Your task to perform on an android device: set default search engine in the chrome app Image 0: 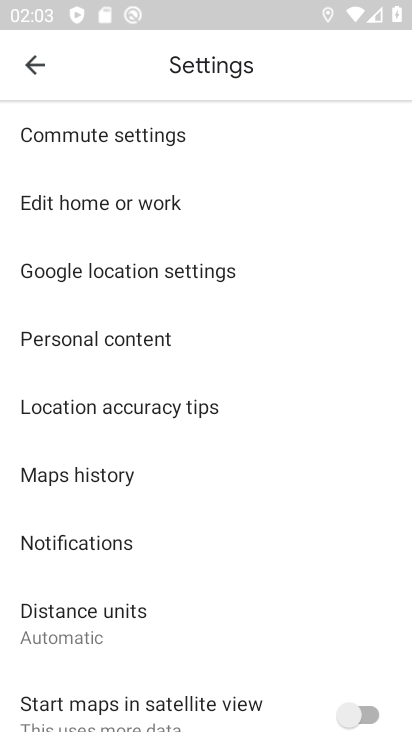
Step 0: press home button
Your task to perform on an android device: set default search engine in the chrome app Image 1: 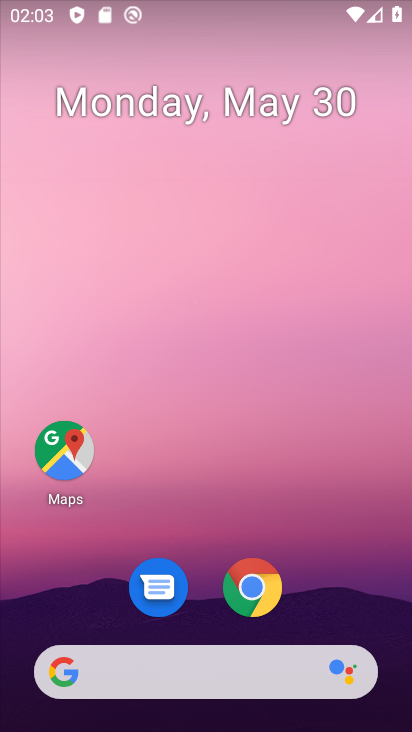
Step 1: click (258, 594)
Your task to perform on an android device: set default search engine in the chrome app Image 2: 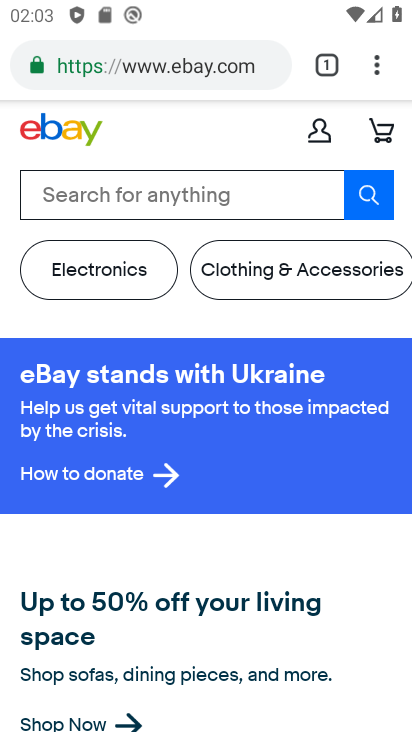
Step 2: click (373, 65)
Your task to perform on an android device: set default search engine in the chrome app Image 3: 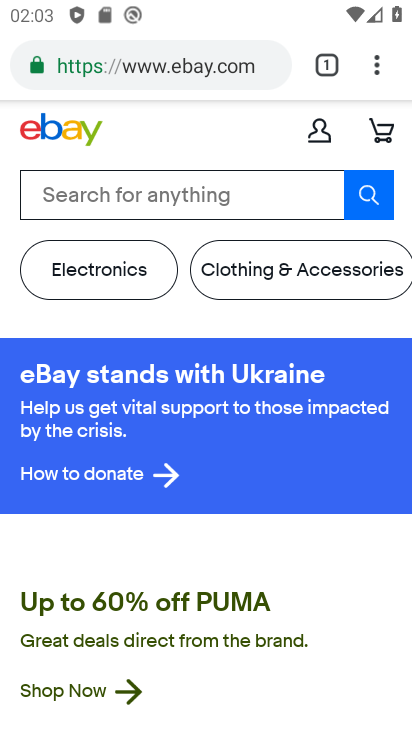
Step 3: click (387, 62)
Your task to perform on an android device: set default search engine in the chrome app Image 4: 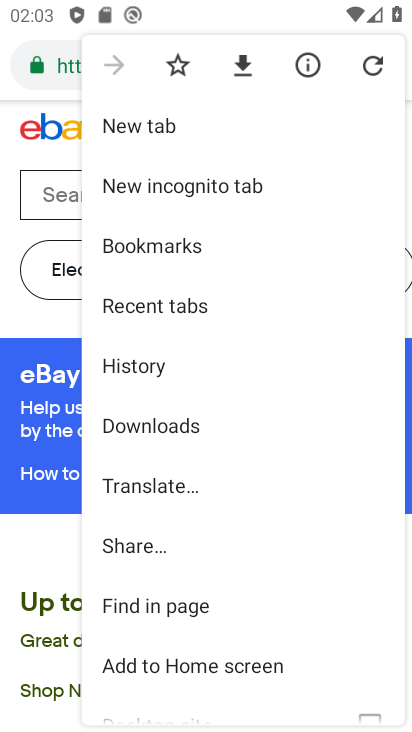
Step 4: drag from (182, 696) to (205, 236)
Your task to perform on an android device: set default search engine in the chrome app Image 5: 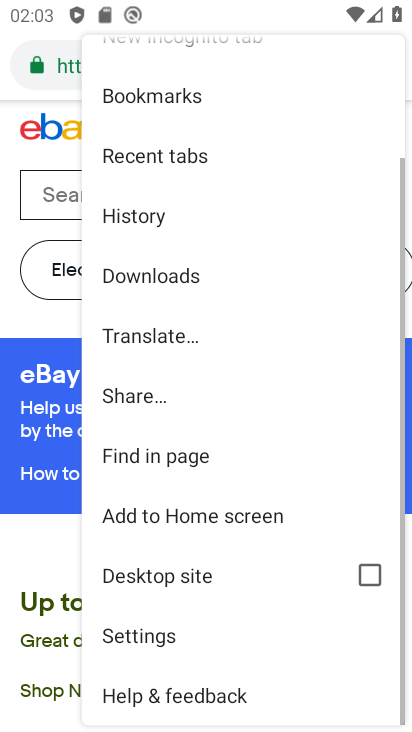
Step 5: click (163, 632)
Your task to perform on an android device: set default search engine in the chrome app Image 6: 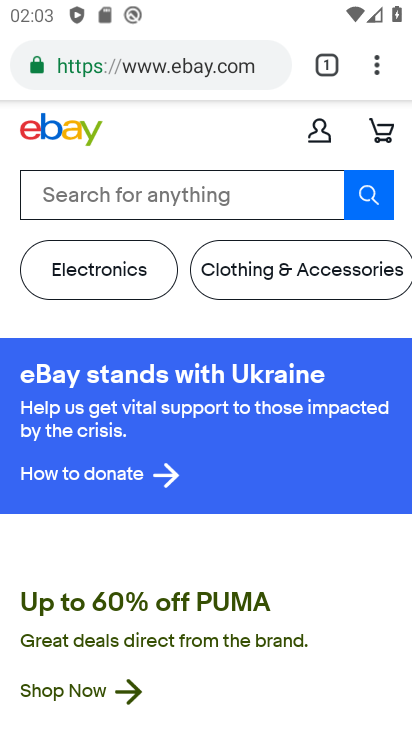
Step 6: click (163, 636)
Your task to perform on an android device: set default search engine in the chrome app Image 7: 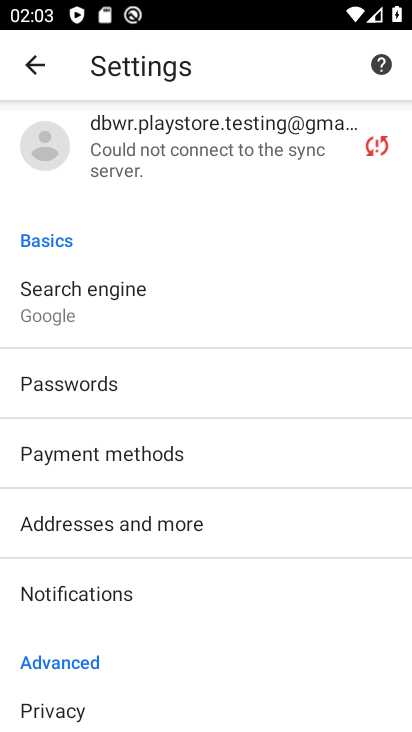
Step 7: click (241, 314)
Your task to perform on an android device: set default search engine in the chrome app Image 8: 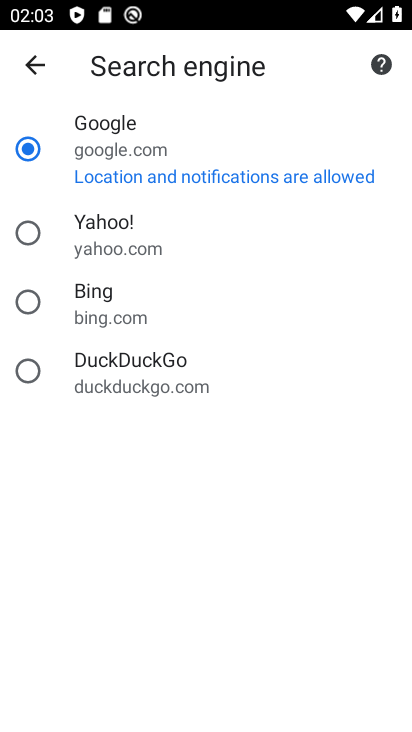
Step 8: click (109, 240)
Your task to perform on an android device: set default search engine in the chrome app Image 9: 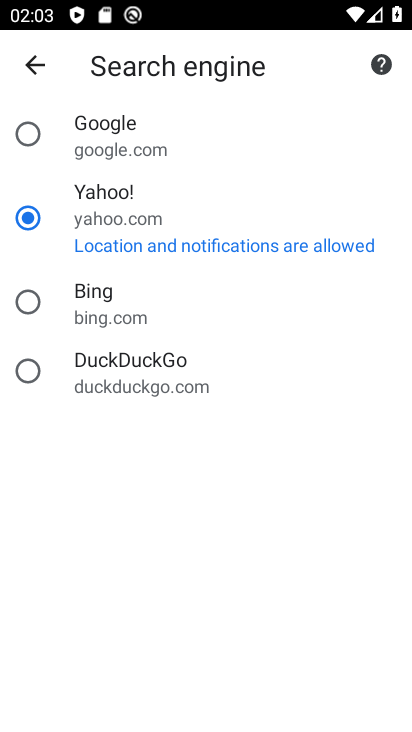
Step 9: task complete